Your task to perform on an android device: change your default location settings in chrome Image 0: 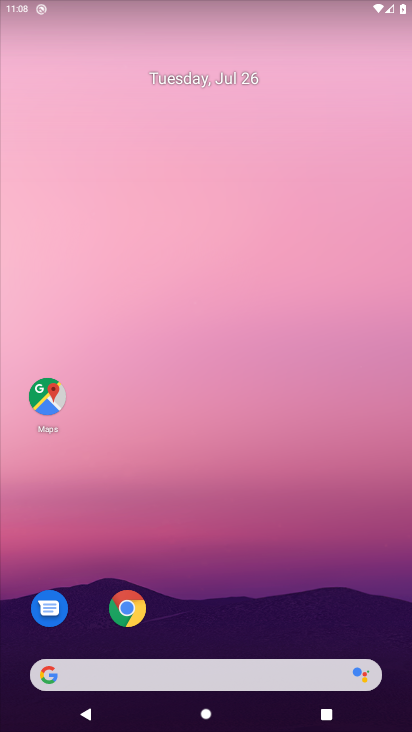
Step 0: click (343, 393)
Your task to perform on an android device: change your default location settings in chrome Image 1: 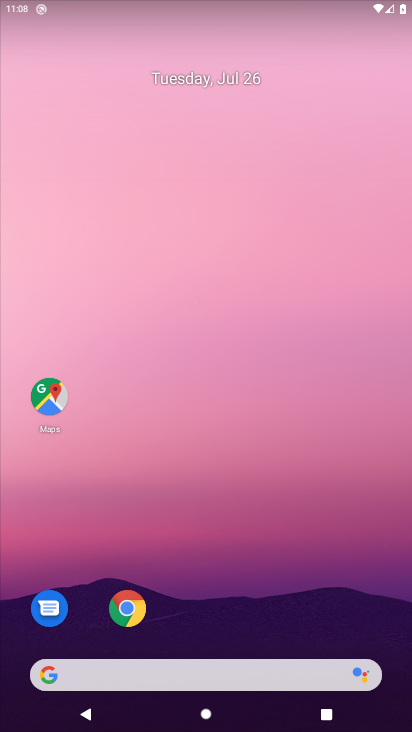
Step 1: click (130, 605)
Your task to perform on an android device: change your default location settings in chrome Image 2: 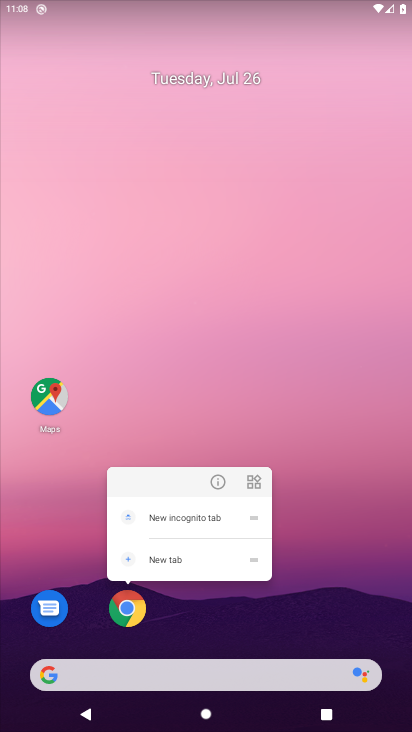
Step 2: click (221, 482)
Your task to perform on an android device: change your default location settings in chrome Image 3: 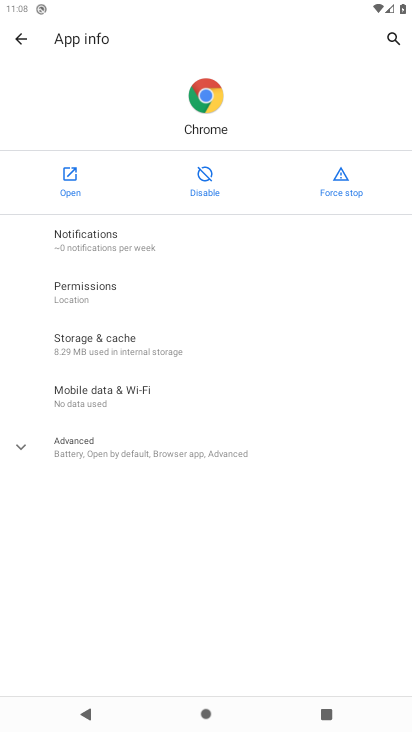
Step 3: click (82, 176)
Your task to perform on an android device: change your default location settings in chrome Image 4: 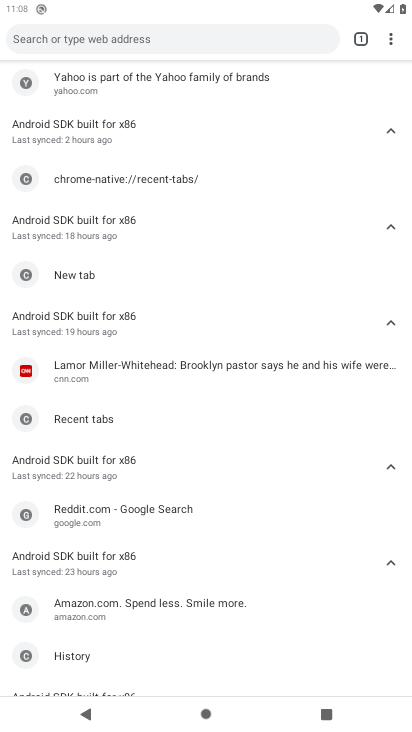
Step 4: drag from (391, 42) to (278, 331)
Your task to perform on an android device: change your default location settings in chrome Image 5: 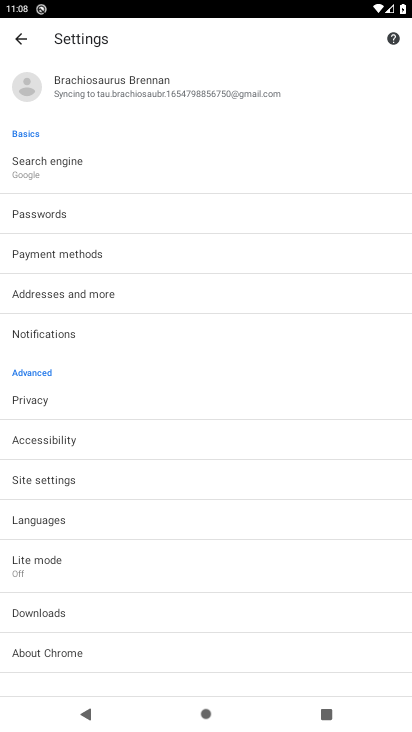
Step 5: drag from (110, 517) to (180, 240)
Your task to perform on an android device: change your default location settings in chrome Image 6: 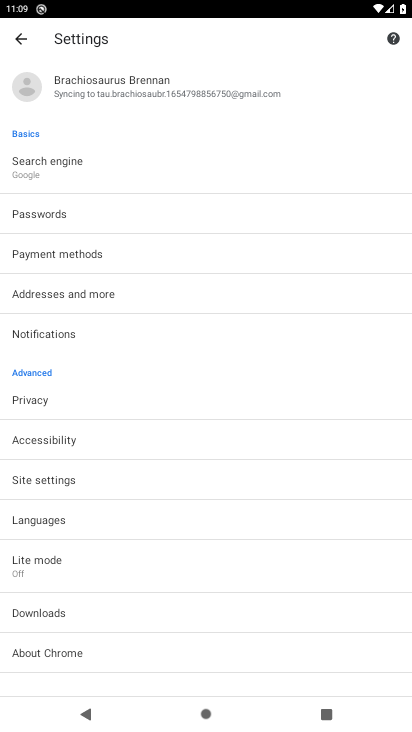
Step 6: click (49, 482)
Your task to perform on an android device: change your default location settings in chrome Image 7: 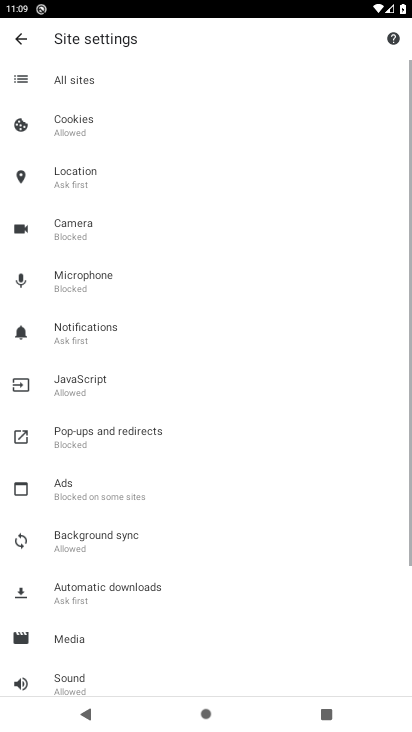
Step 7: click (129, 166)
Your task to perform on an android device: change your default location settings in chrome Image 8: 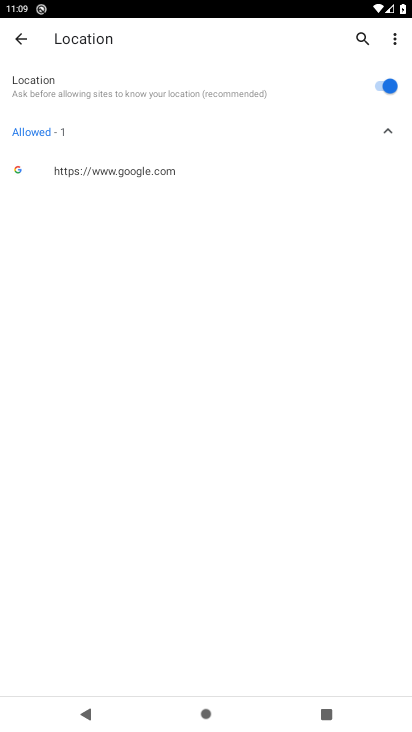
Step 8: drag from (205, 581) to (218, 406)
Your task to perform on an android device: change your default location settings in chrome Image 9: 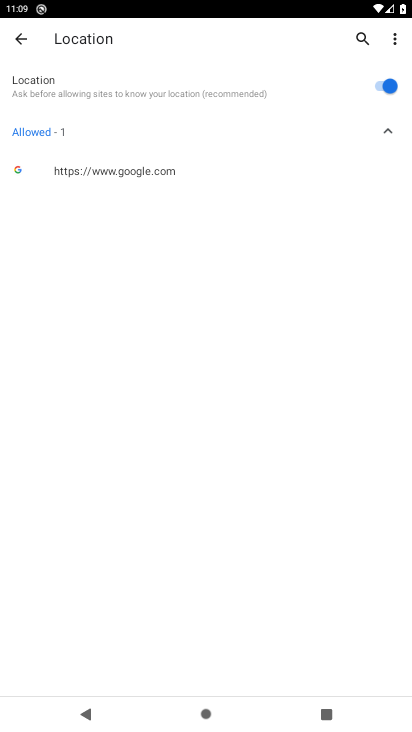
Step 9: drag from (223, 429) to (241, 247)
Your task to perform on an android device: change your default location settings in chrome Image 10: 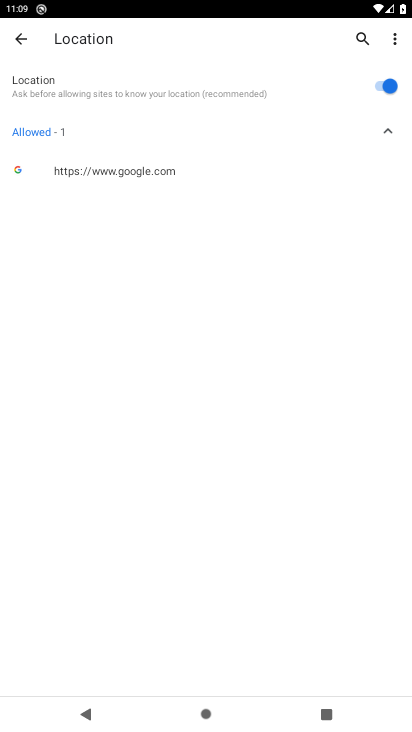
Step 10: drag from (233, 450) to (320, 224)
Your task to perform on an android device: change your default location settings in chrome Image 11: 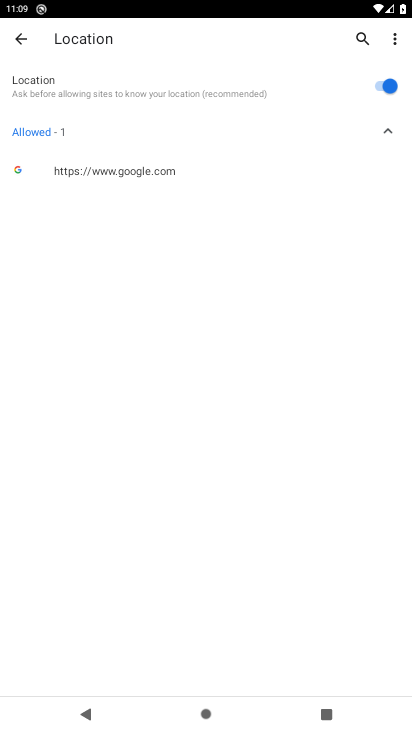
Step 11: click (378, 84)
Your task to perform on an android device: change your default location settings in chrome Image 12: 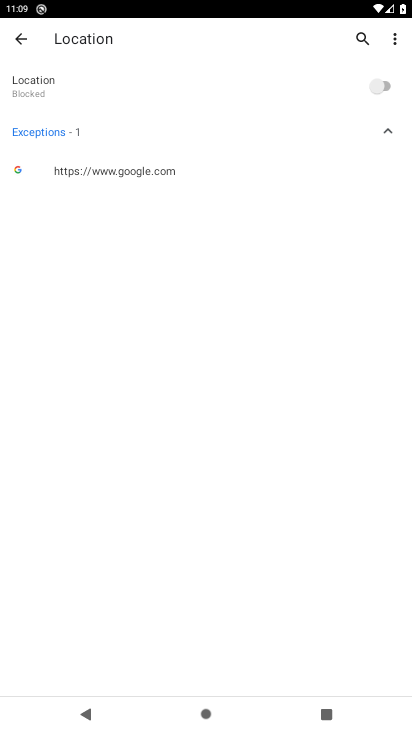
Step 12: task complete